Your task to perform on an android device: Open Yahoo.com Image 0: 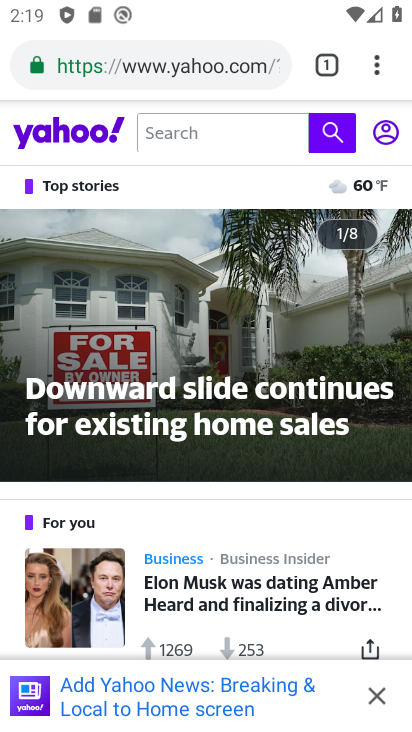
Step 0: task complete